Your task to perform on an android device: empty trash in the gmail app Image 0: 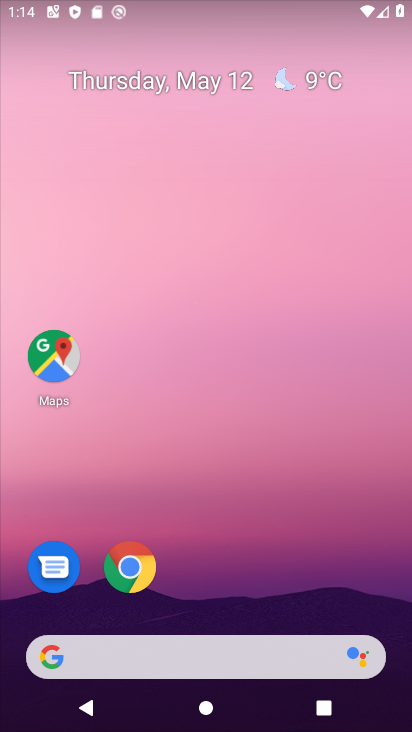
Step 0: drag from (207, 12) to (228, 568)
Your task to perform on an android device: empty trash in the gmail app Image 1: 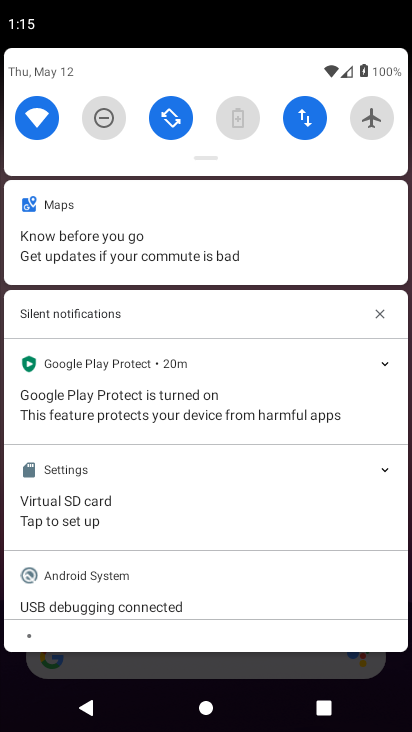
Step 1: press home button
Your task to perform on an android device: empty trash in the gmail app Image 2: 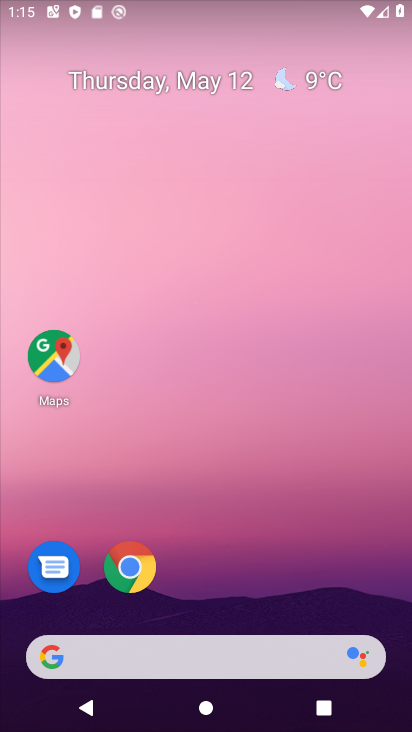
Step 2: drag from (215, 606) to (206, 42)
Your task to perform on an android device: empty trash in the gmail app Image 3: 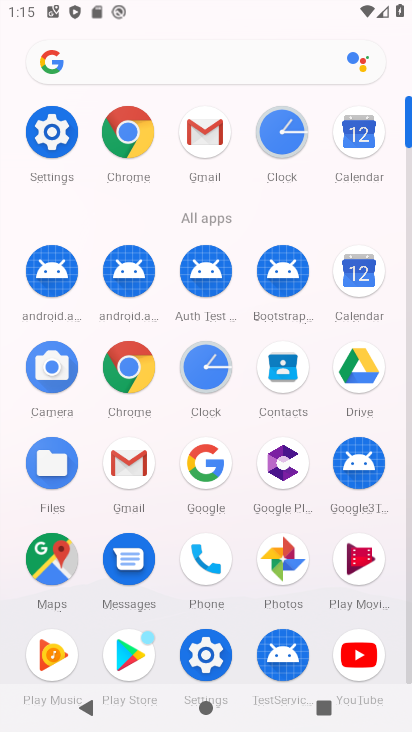
Step 3: click (203, 120)
Your task to perform on an android device: empty trash in the gmail app Image 4: 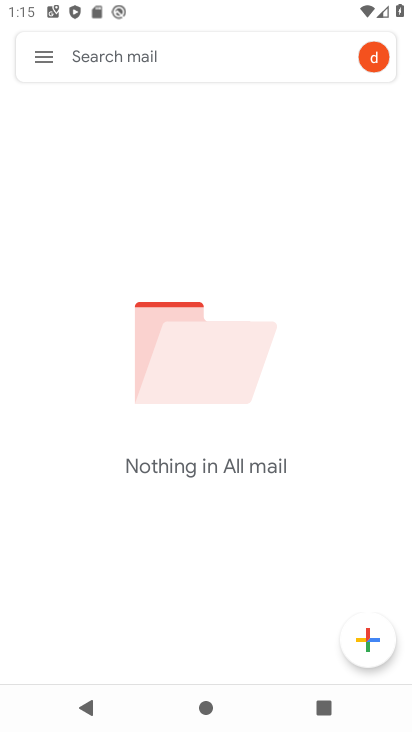
Step 4: click (38, 51)
Your task to perform on an android device: empty trash in the gmail app Image 5: 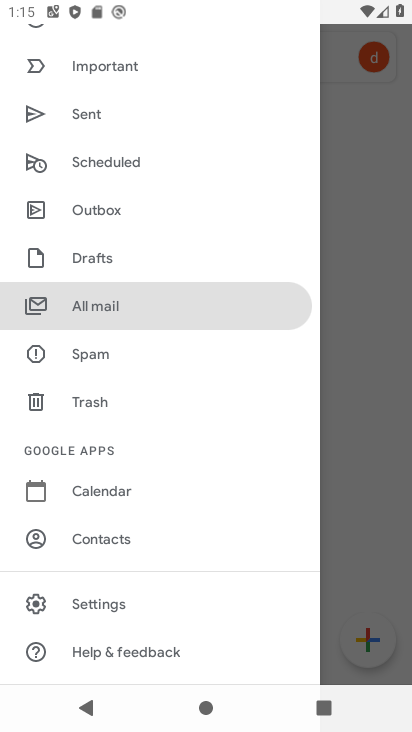
Step 5: click (95, 395)
Your task to perform on an android device: empty trash in the gmail app Image 6: 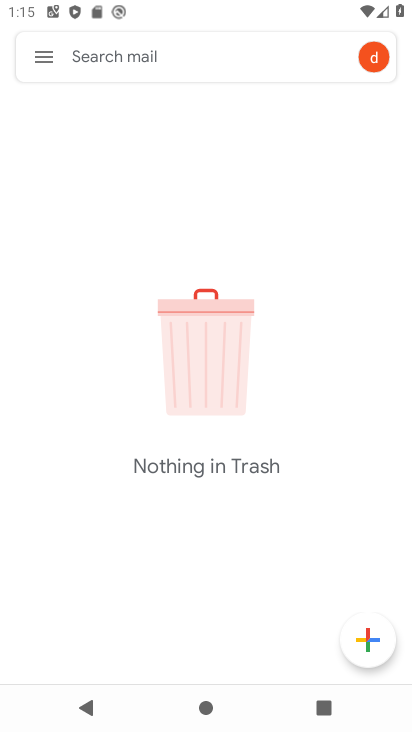
Step 6: task complete